Your task to perform on an android device: add a label to a message in the gmail app Image 0: 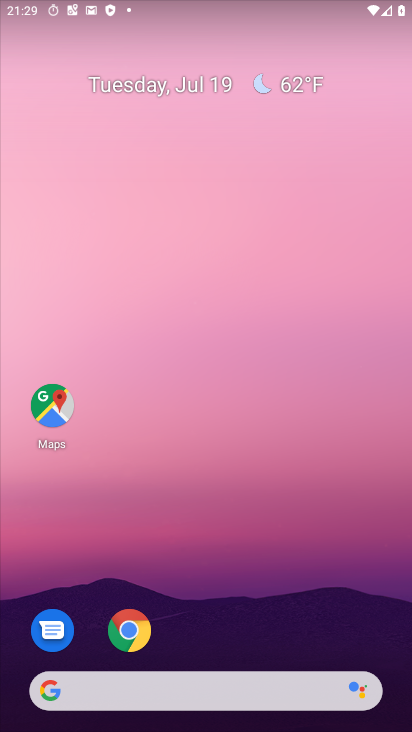
Step 0: drag from (47, 688) to (276, 14)
Your task to perform on an android device: add a label to a message in the gmail app Image 1: 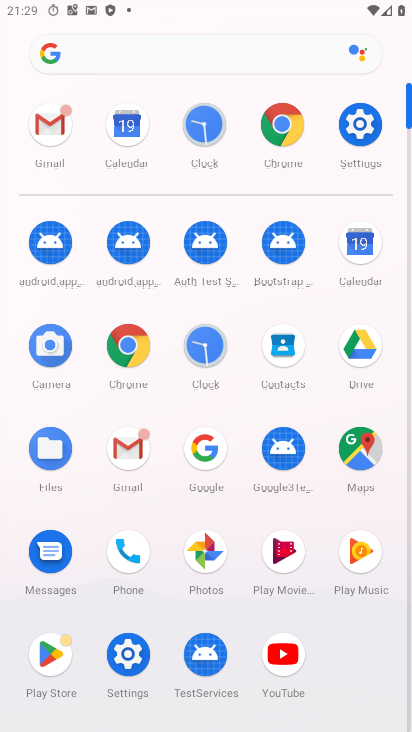
Step 1: click (112, 446)
Your task to perform on an android device: add a label to a message in the gmail app Image 2: 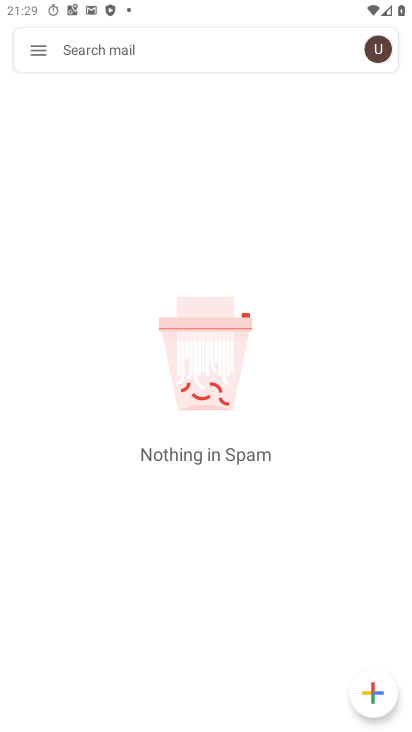
Step 2: click (33, 50)
Your task to perform on an android device: add a label to a message in the gmail app Image 3: 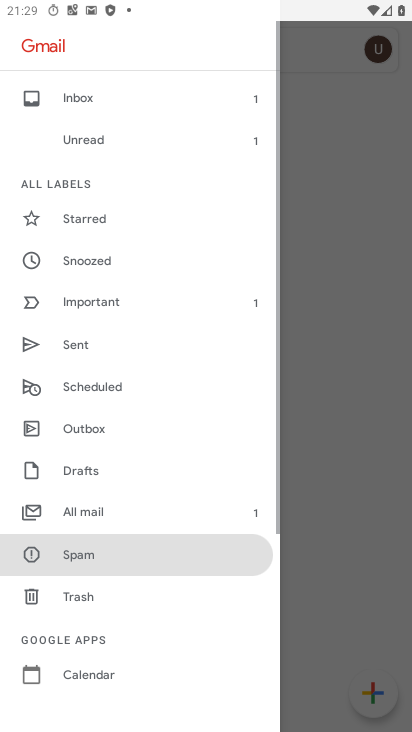
Step 3: click (121, 119)
Your task to perform on an android device: add a label to a message in the gmail app Image 4: 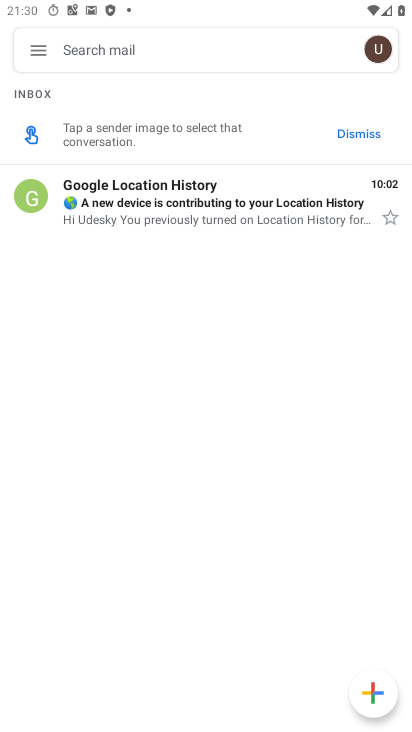
Step 4: task complete